Your task to perform on an android device: Go to Maps Image 0: 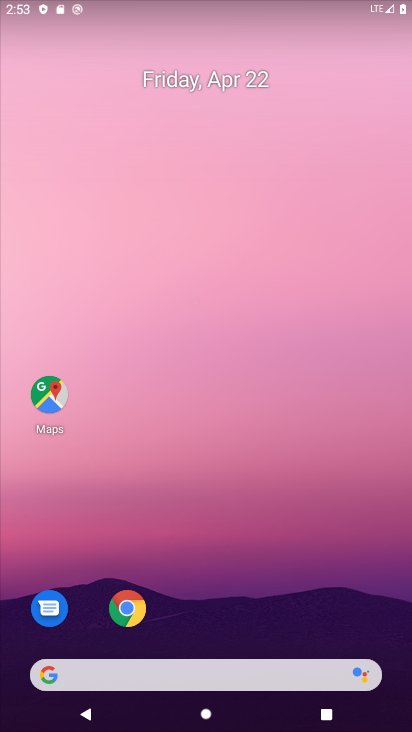
Step 0: drag from (234, 698) to (185, 293)
Your task to perform on an android device: Go to Maps Image 1: 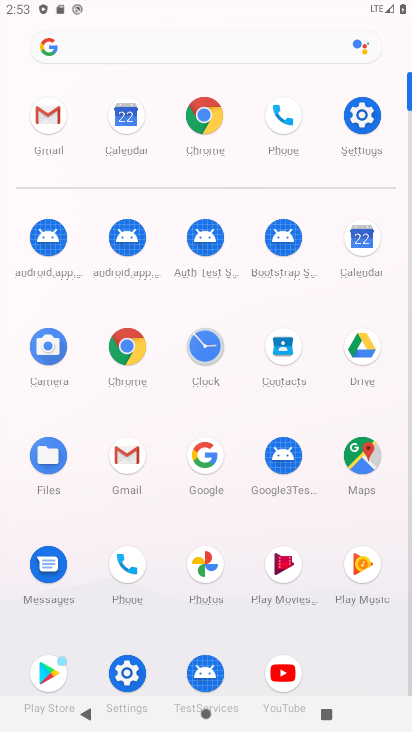
Step 1: click (366, 446)
Your task to perform on an android device: Go to Maps Image 2: 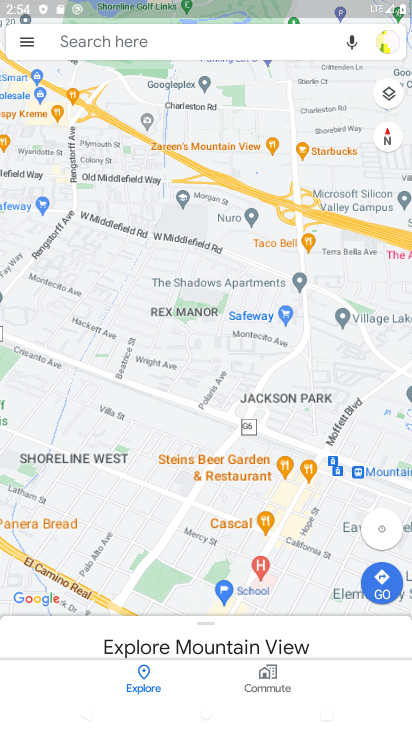
Step 2: click (386, 528)
Your task to perform on an android device: Go to Maps Image 3: 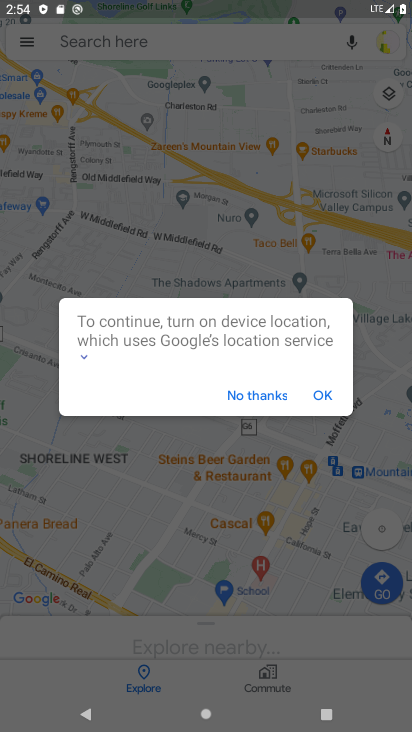
Step 3: click (271, 397)
Your task to perform on an android device: Go to Maps Image 4: 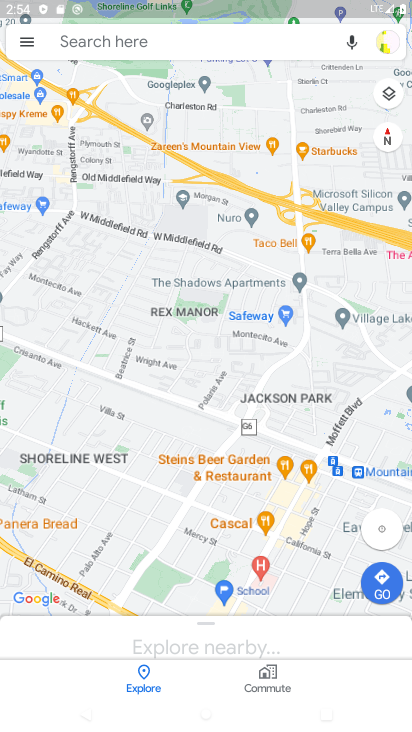
Step 4: task complete